Your task to perform on an android device: What's the weather going to be tomorrow? Image 0: 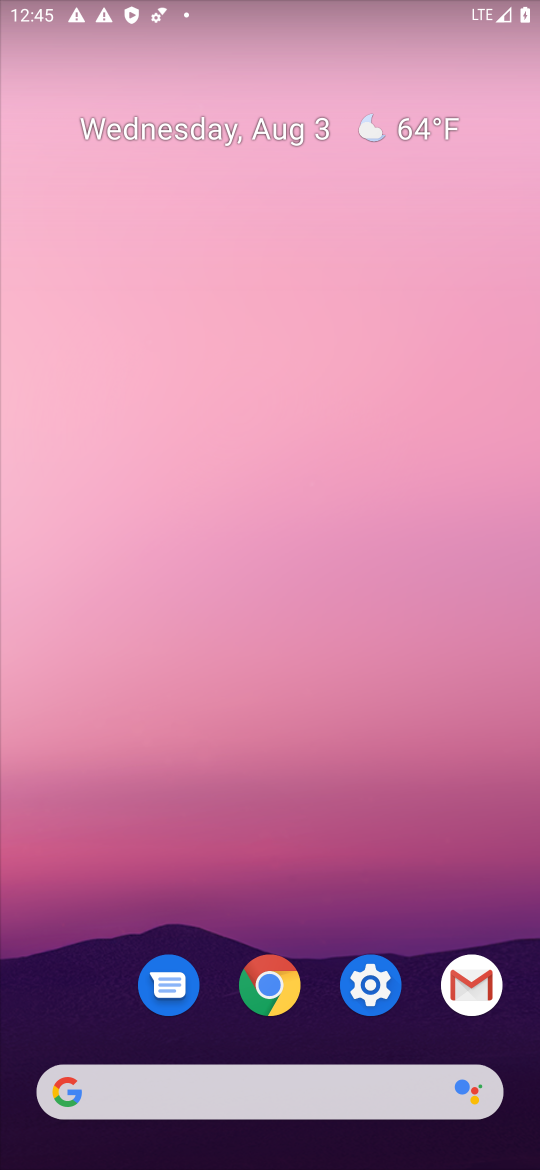
Step 0: press home button
Your task to perform on an android device: What's the weather going to be tomorrow? Image 1: 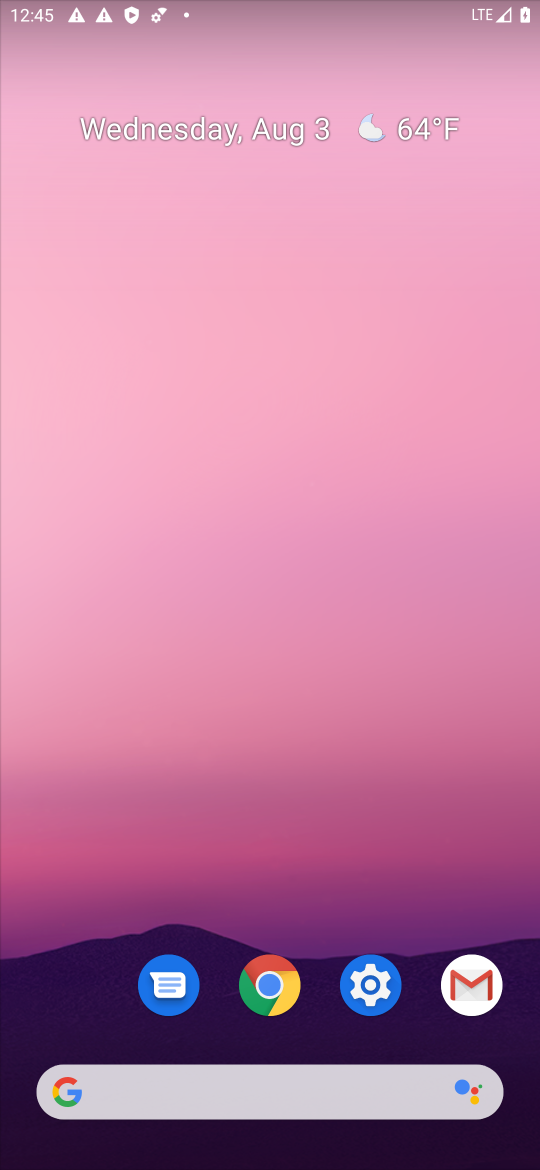
Step 1: click (288, 1095)
Your task to perform on an android device: What's the weather going to be tomorrow? Image 2: 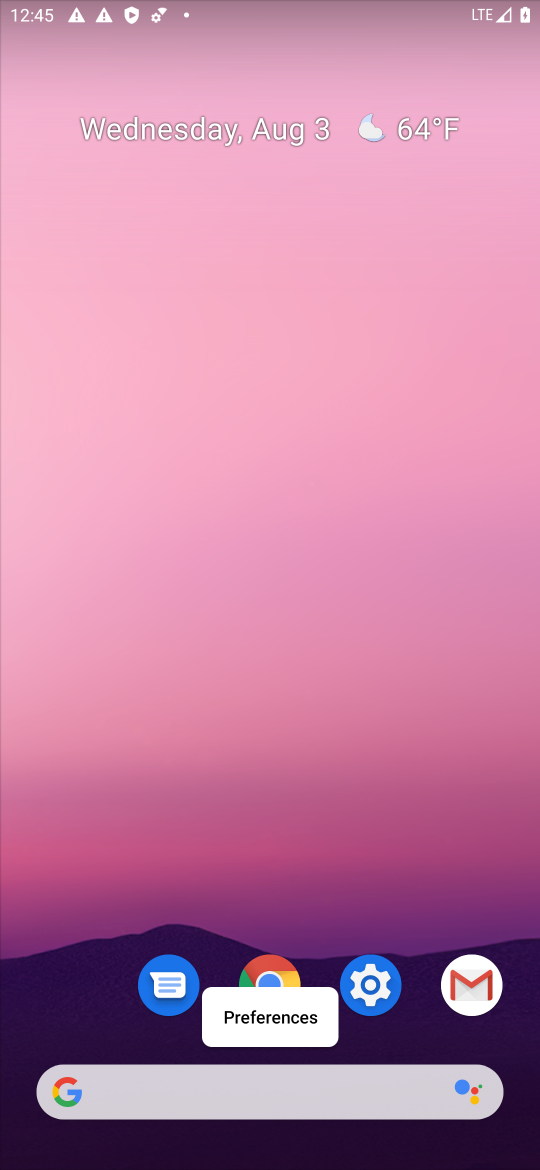
Step 2: click (194, 1110)
Your task to perform on an android device: What's the weather going to be tomorrow? Image 3: 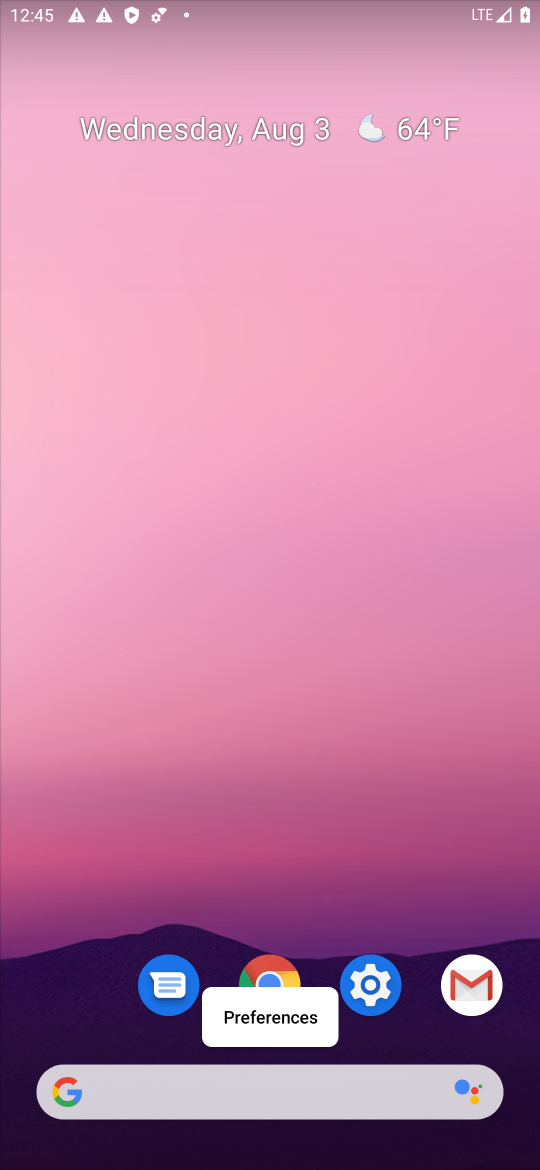
Step 3: click (172, 1097)
Your task to perform on an android device: What's the weather going to be tomorrow? Image 4: 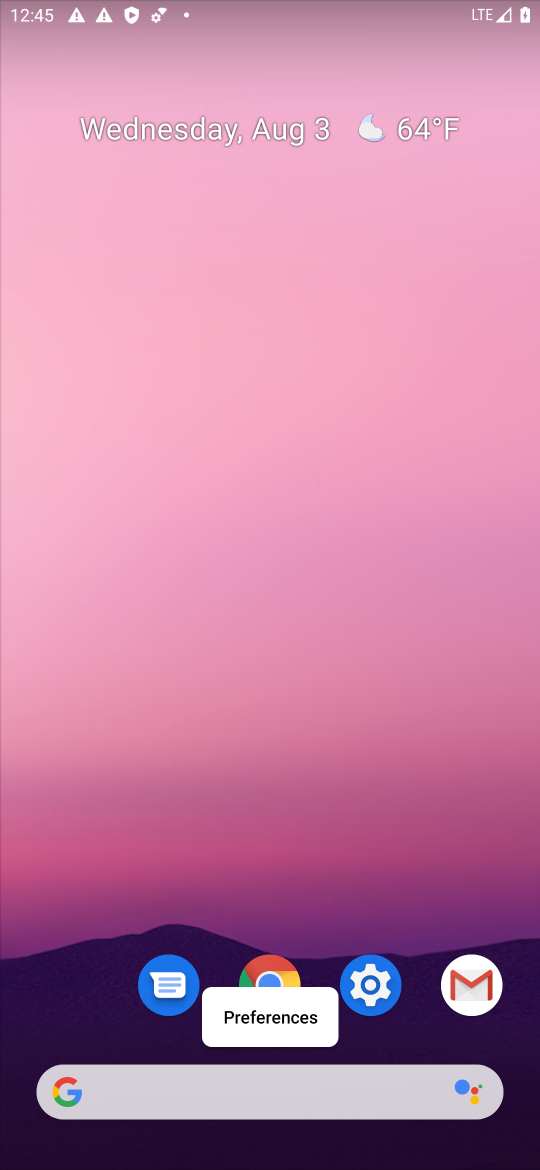
Step 4: click (188, 1105)
Your task to perform on an android device: What's the weather going to be tomorrow? Image 5: 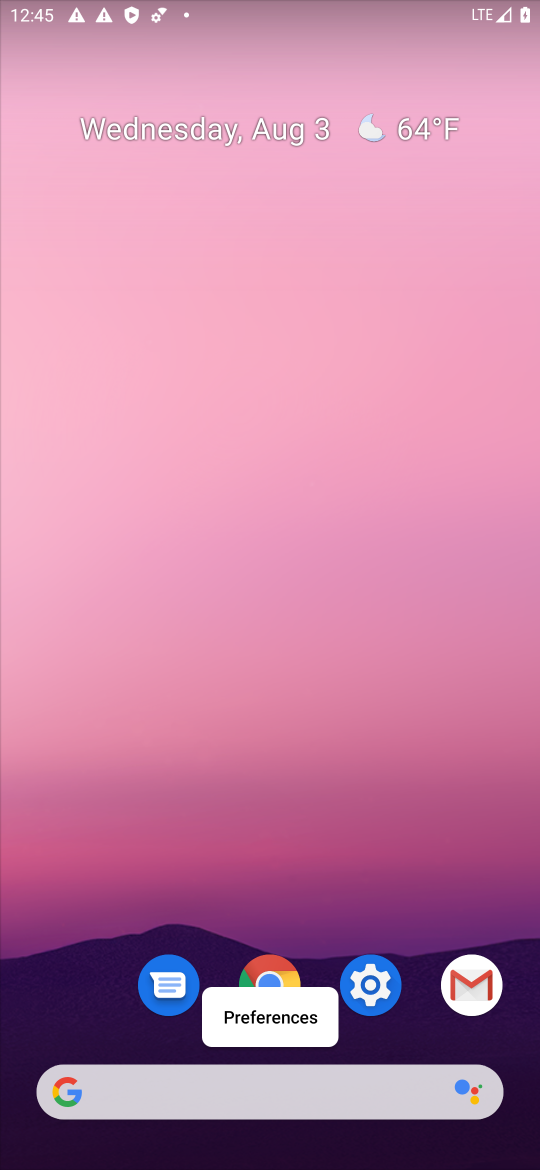
Step 5: drag from (271, 1132) to (280, 380)
Your task to perform on an android device: What's the weather going to be tomorrow? Image 6: 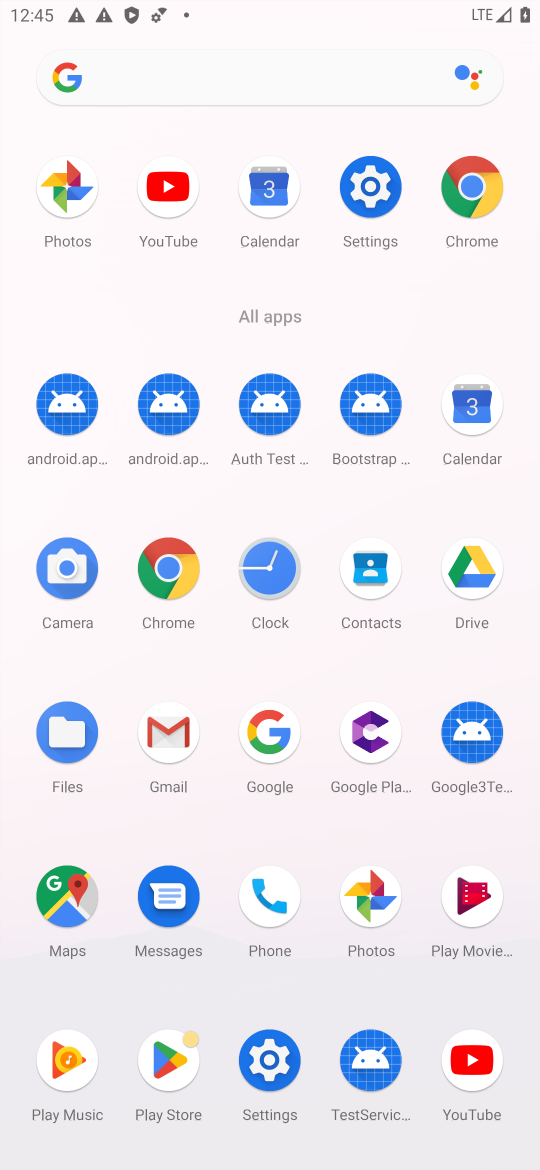
Step 6: click (179, 80)
Your task to perform on an android device: What's the weather going to be tomorrow? Image 7: 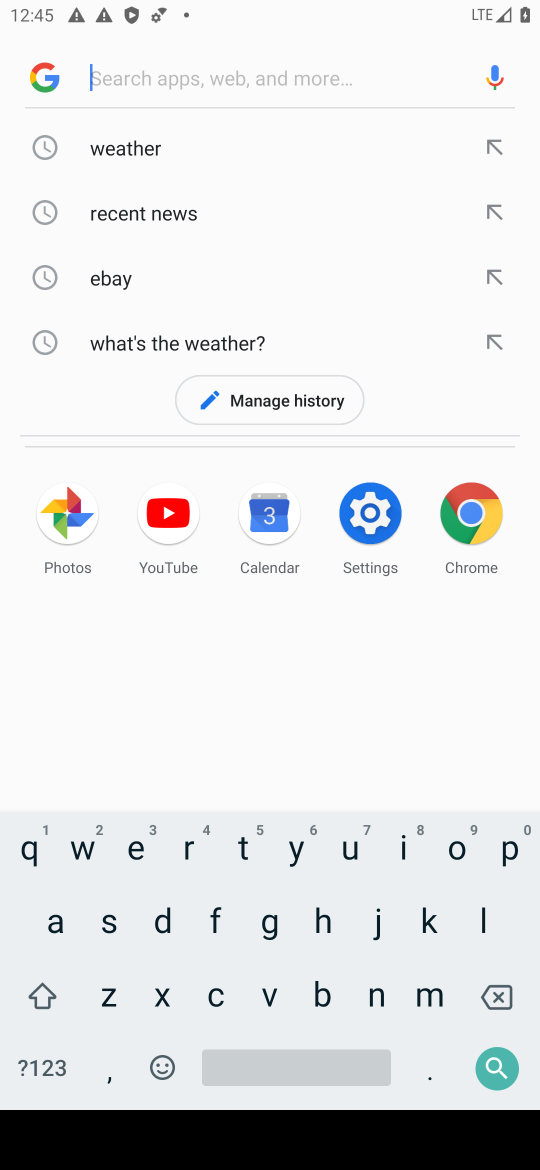
Step 7: click (88, 871)
Your task to perform on an android device: What's the weather going to be tomorrow? Image 8: 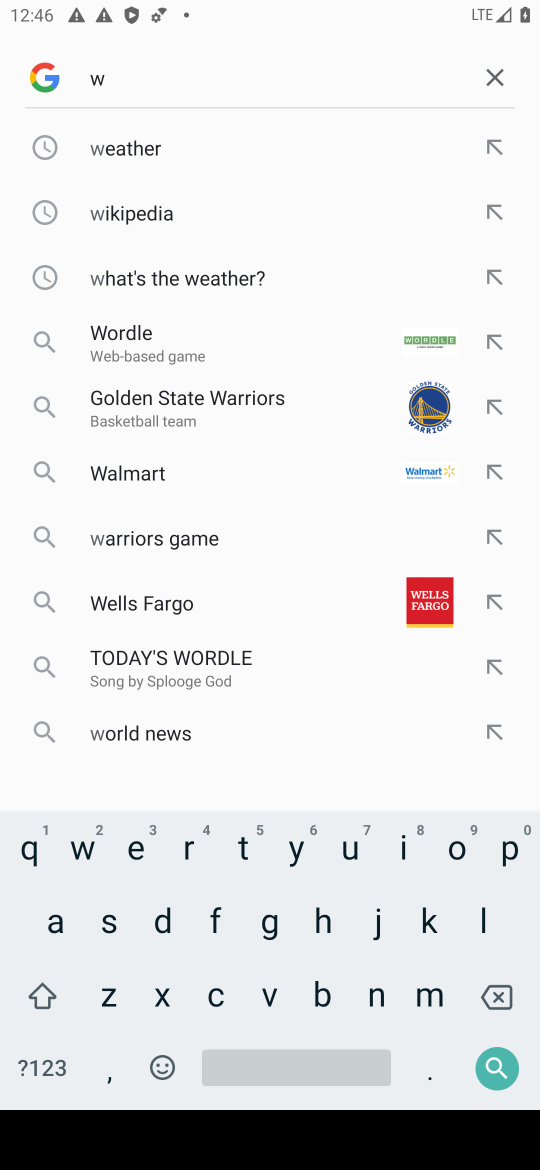
Step 8: click (321, 914)
Your task to perform on an android device: What's the weather going to be tomorrow? Image 9: 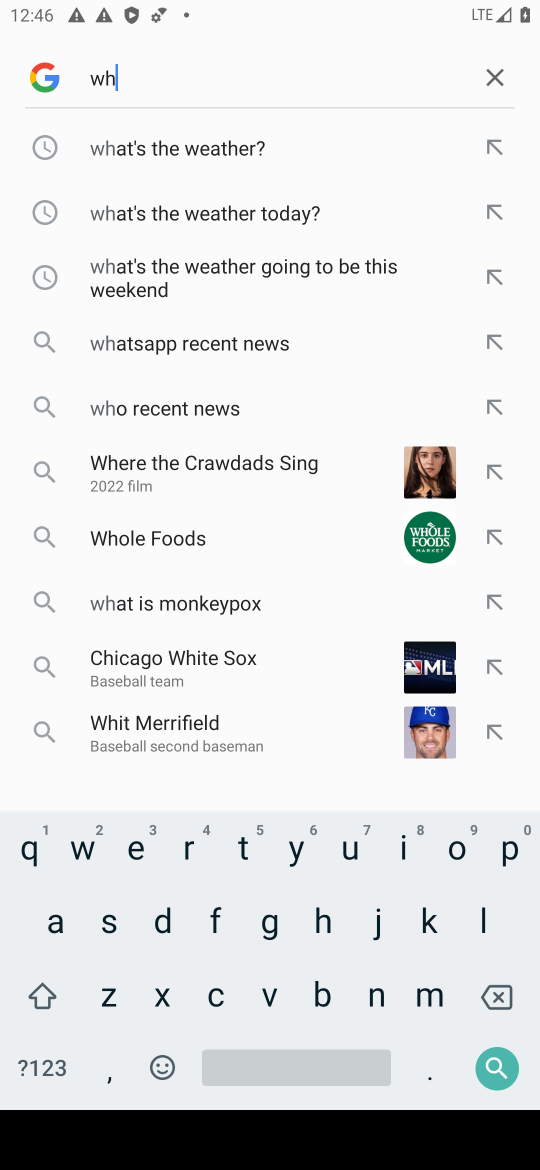
Step 9: click (194, 136)
Your task to perform on an android device: What's the weather going to be tomorrow? Image 10: 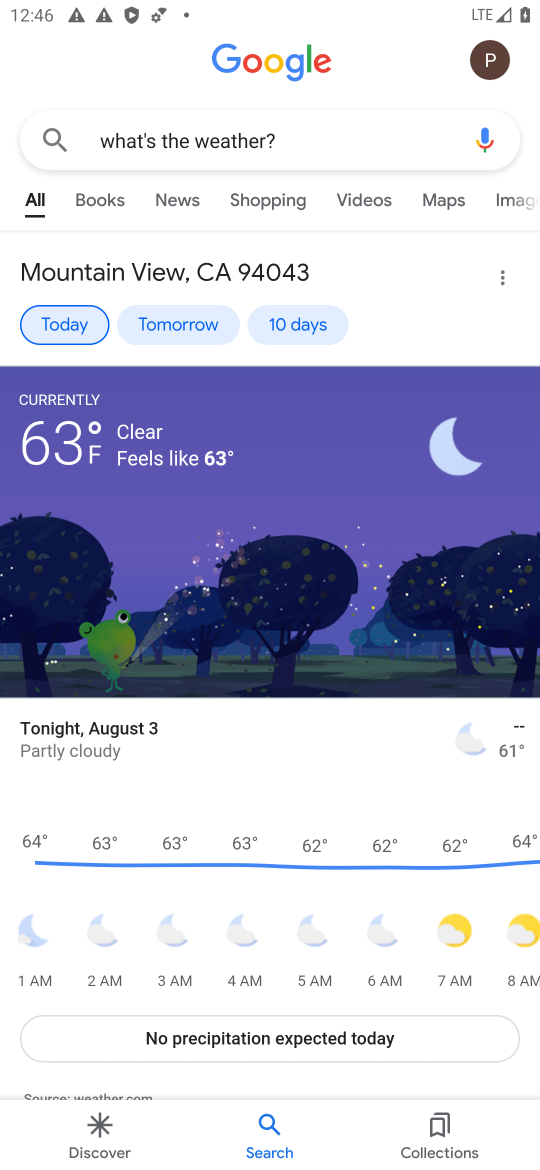
Step 10: click (173, 320)
Your task to perform on an android device: What's the weather going to be tomorrow? Image 11: 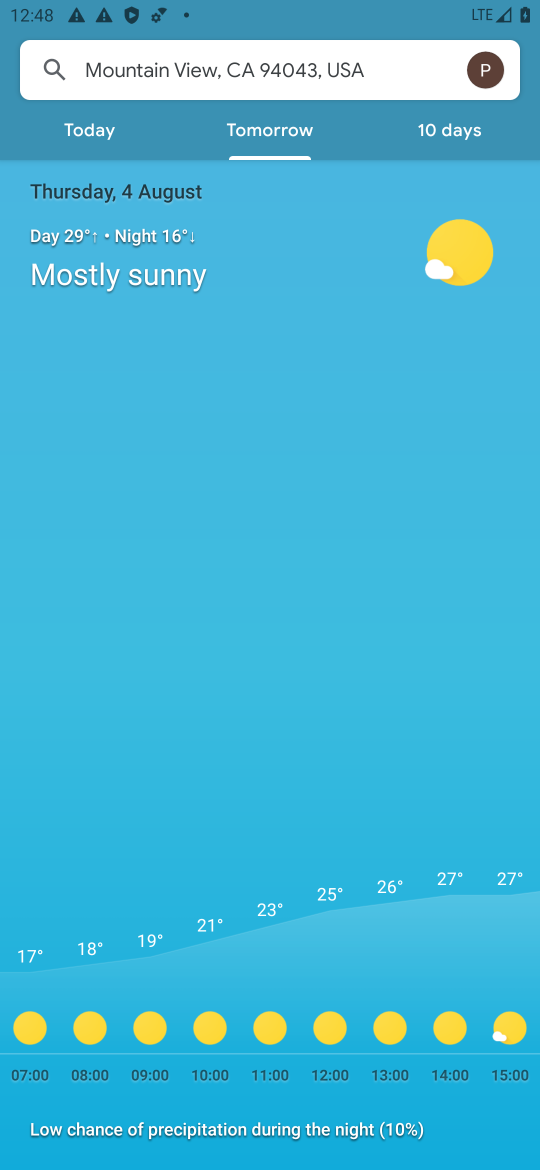
Step 11: task complete